Your task to perform on an android device: Show me the alarms in the clock app Image 0: 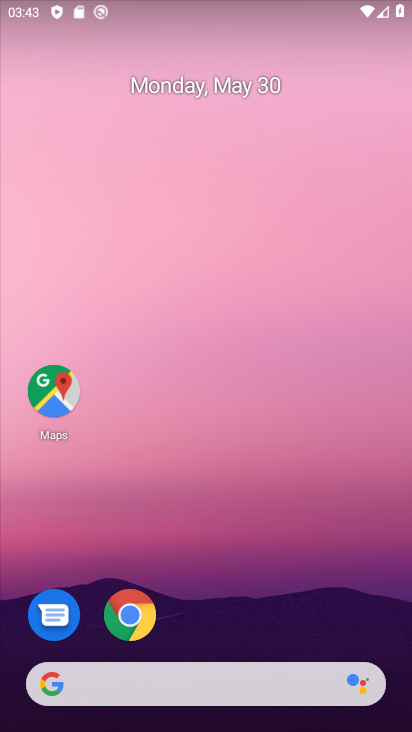
Step 0: drag from (257, 622) to (230, 66)
Your task to perform on an android device: Show me the alarms in the clock app Image 1: 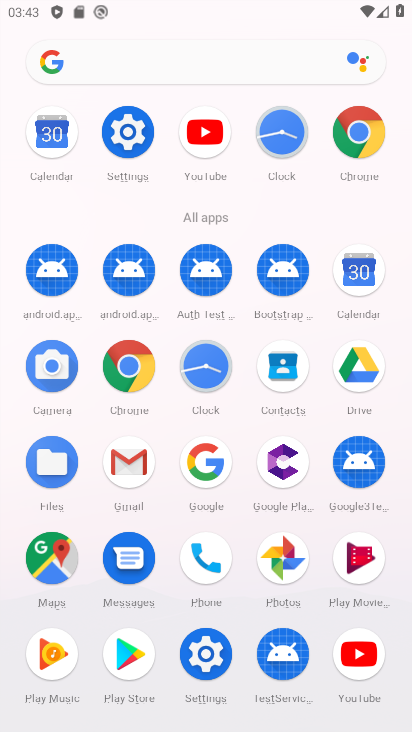
Step 1: click (281, 132)
Your task to perform on an android device: Show me the alarms in the clock app Image 2: 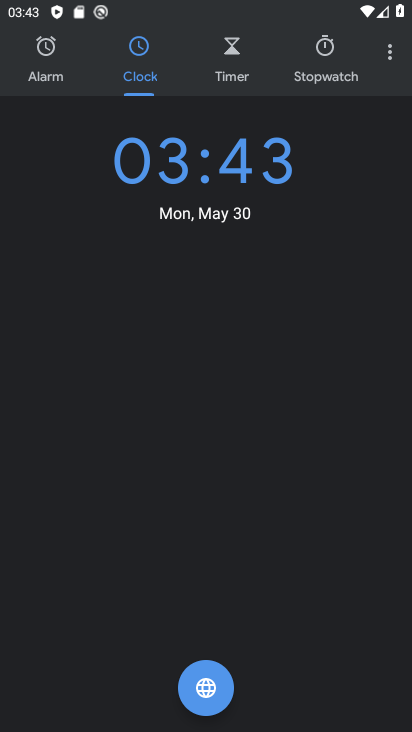
Step 2: click (51, 48)
Your task to perform on an android device: Show me the alarms in the clock app Image 3: 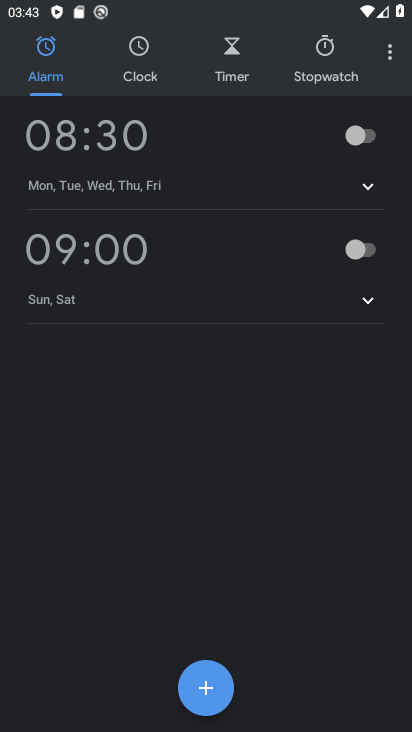
Step 3: task complete